Your task to perform on an android device: delete the emails in spam in the gmail app Image 0: 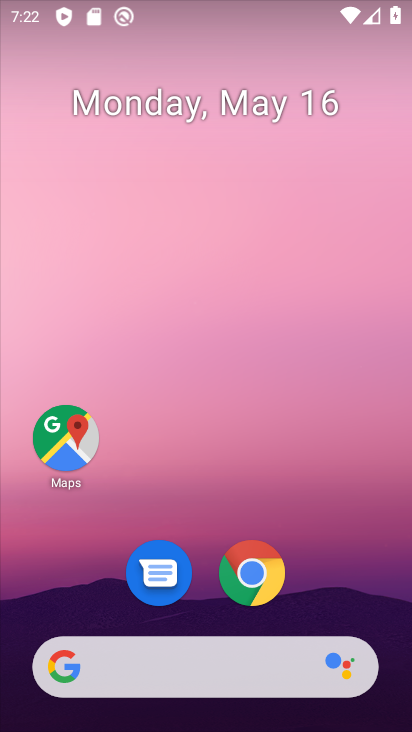
Step 0: drag from (323, 530) to (372, 30)
Your task to perform on an android device: delete the emails in spam in the gmail app Image 1: 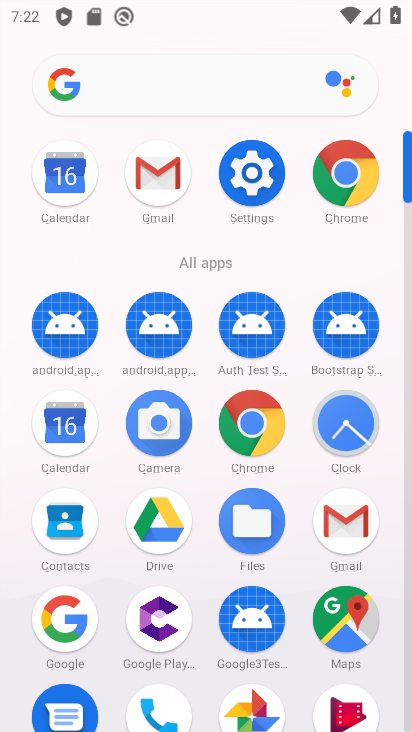
Step 1: click (154, 181)
Your task to perform on an android device: delete the emails in spam in the gmail app Image 2: 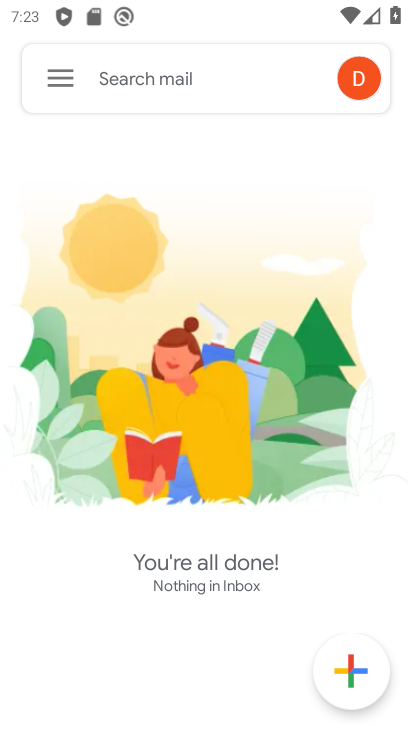
Step 2: click (34, 61)
Your task to perform on an android device: delete the emails in spam in the gmail app Image 3: 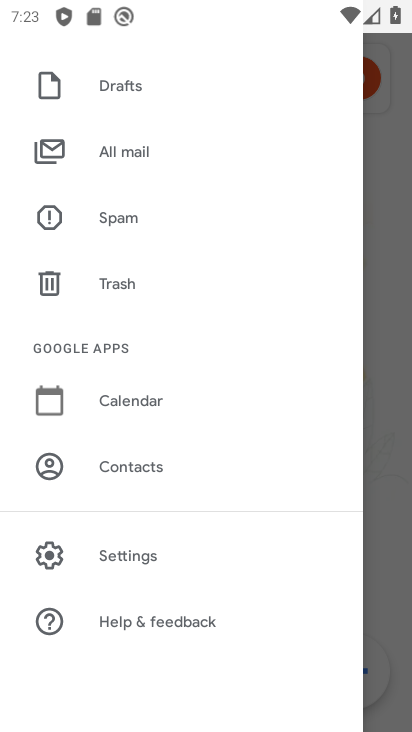
Step 3: click (113, 210)
Your task to perform on an android device: delete the emails in spam in the gmail app Image 4: 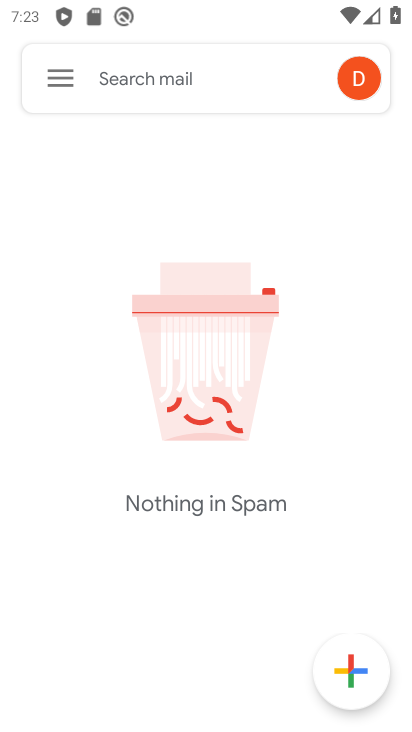
Step 4: task complete